Your task to perform on an android device: What's the weather going to be tomorrow? Image 0: 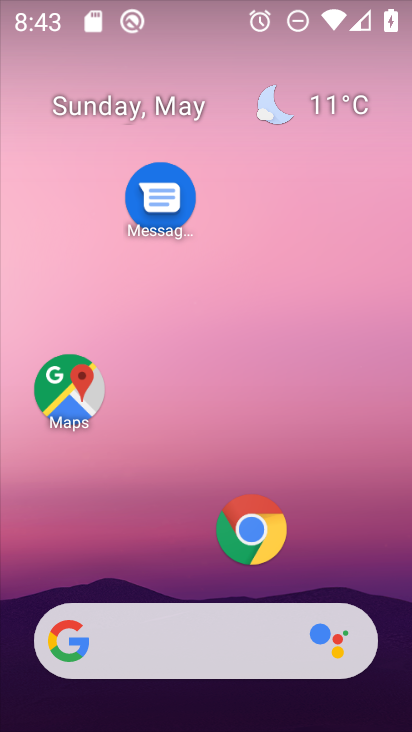
Step 0: drag from (195, 579) to (224, 27)
Your task to perform on an android device: What's the weather going to be tomorrow? Image 1: 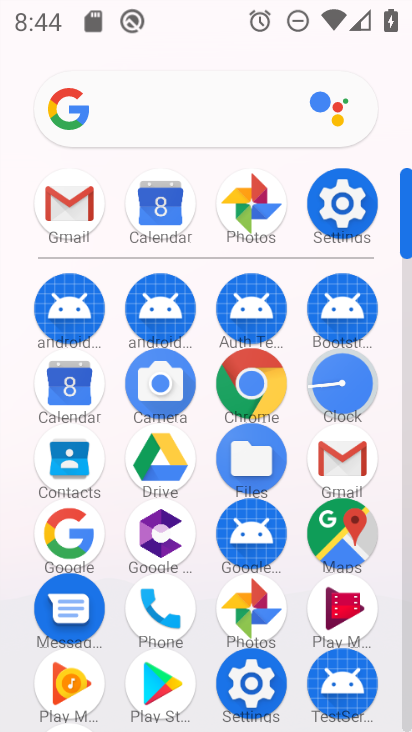
Step 1: press home button
Your task to perform on an android device: What's the weather going to be tomorrow? Image 2: 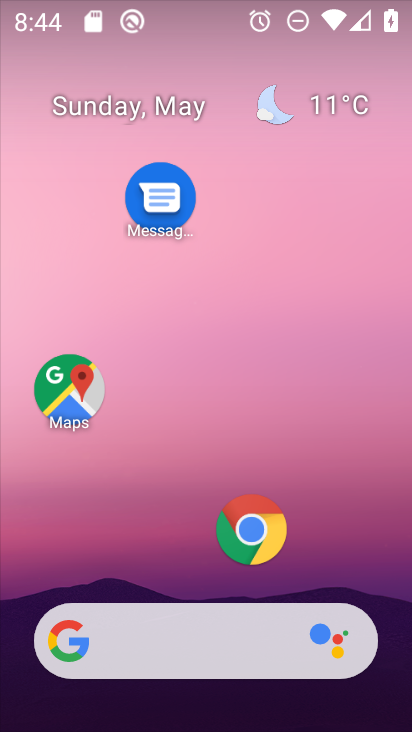
Step 2: click (321, 100)
Your task to perform on an android device: What's the weather going to be tomorrow? Image 3: 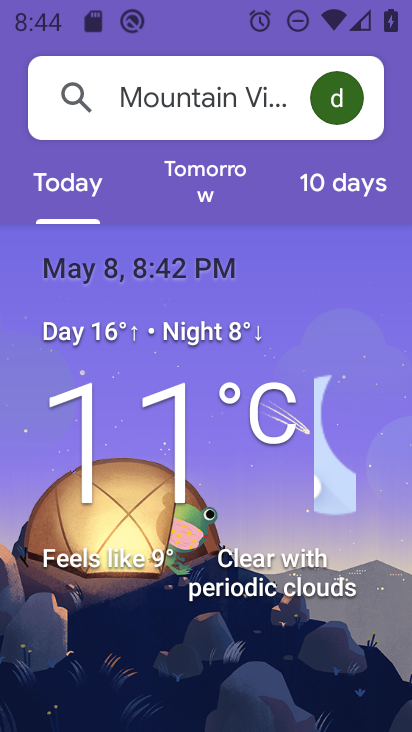
Step 3: click (214, 178)
Your task to perform on an android device: What's the weather going to be tomorrow? Image 4: 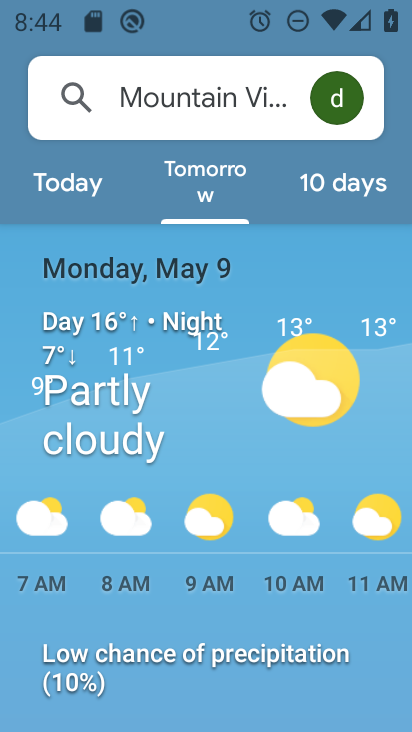
Step 4: task complete